Your task to perform on an android device: Go to Maps Image 0: 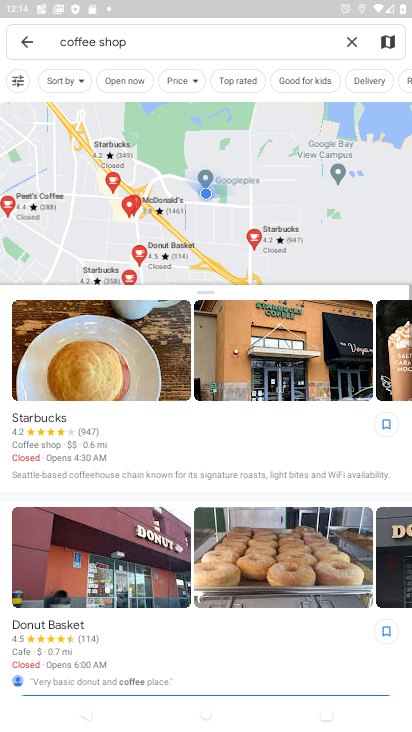
Step 0: press back button
Your task to perform on an android device: Go to Maps Image 1: 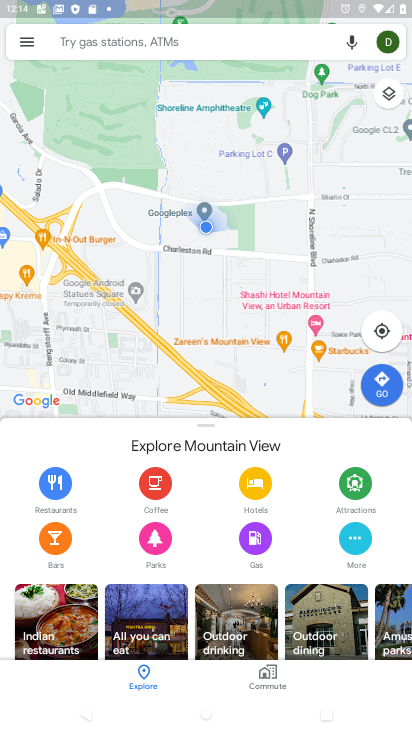
Step 1: task complete